Your task to perform on an android device: open chrome privacy settings Image 0: 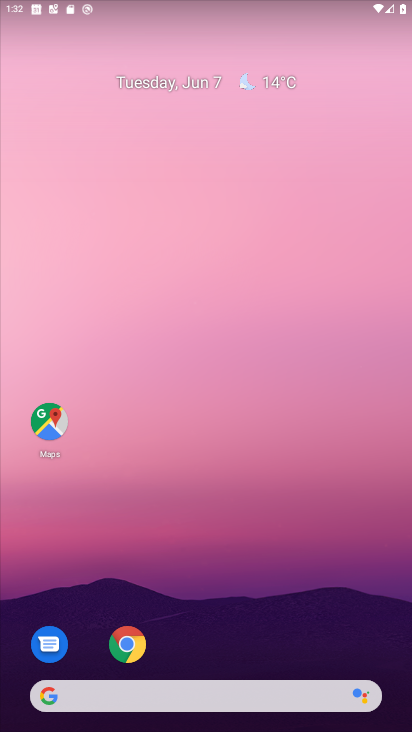
Step 0: click (127, 649)
Your task to perform on an android device: open chrome privacy settings Image 1: 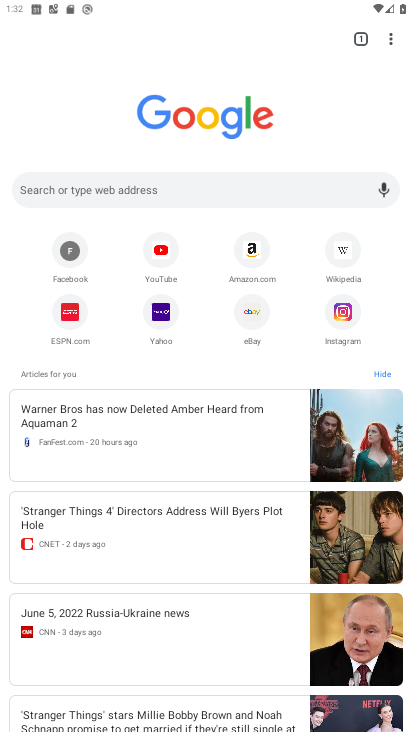
Step 1: click (396, 42)
Your task to perform on an android device: open chrome privacy settings Image 2: 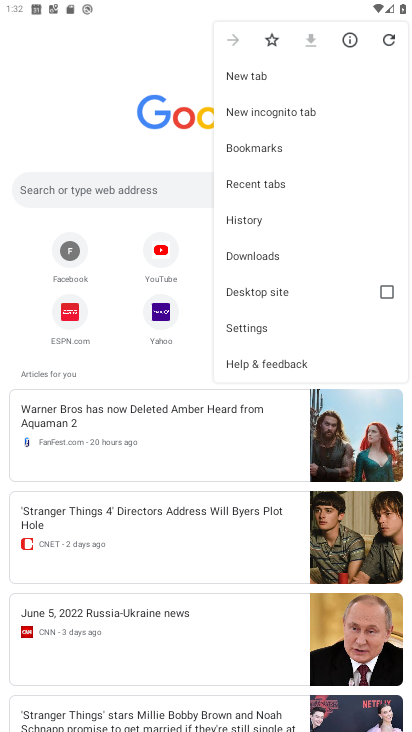
Step 2: click (275, 335)
Your task to perform on an android device: open chrome privacy settings Image 3: 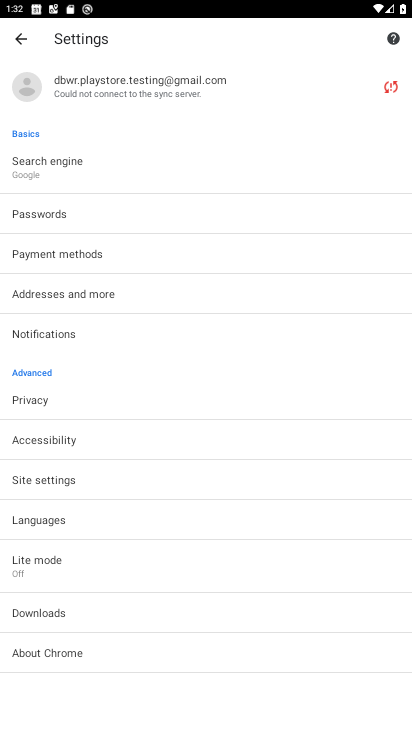
Step 3: click (33, 392)
Your task to perform on an android device: open chrome privacy settings Image 4: 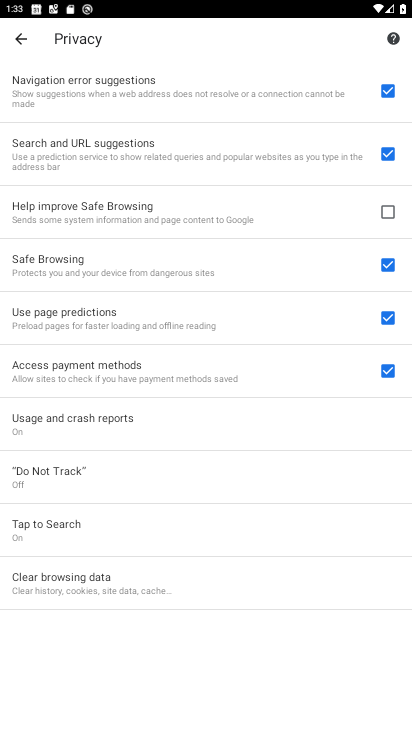
Step 4: task complete